Your task to perform on an android device: star an email in the gmail app Image 0: 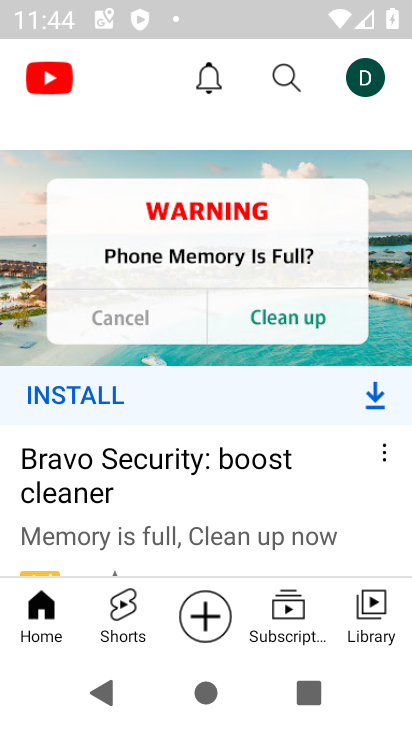
Step 0: press home button
Your task to perform on an android device: star an email in the gmail app Image 1: 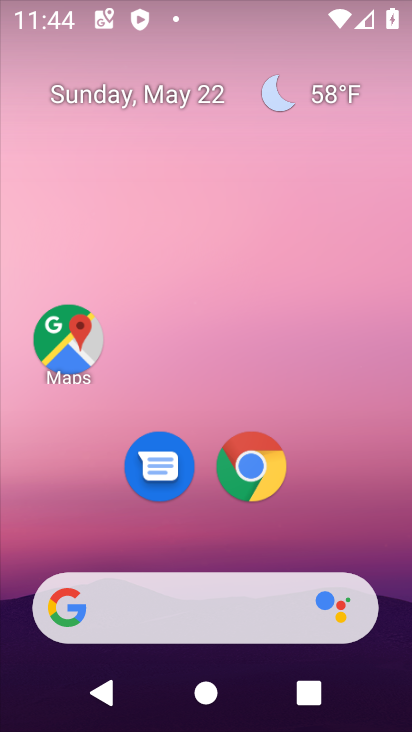
Step 1: drag from (205, 537) to (259, 69)
Your task to perform on an android device: star an email in the gmail app Image 2: 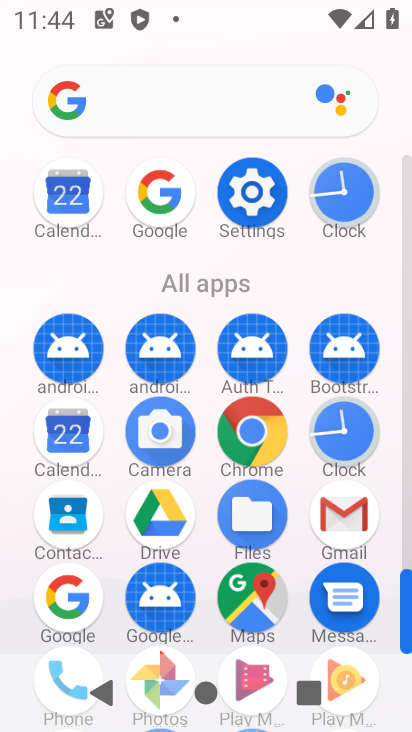
Step 2: click (341, 511)
Your task to perform on an android device: star an email in the gmail app Image 3: 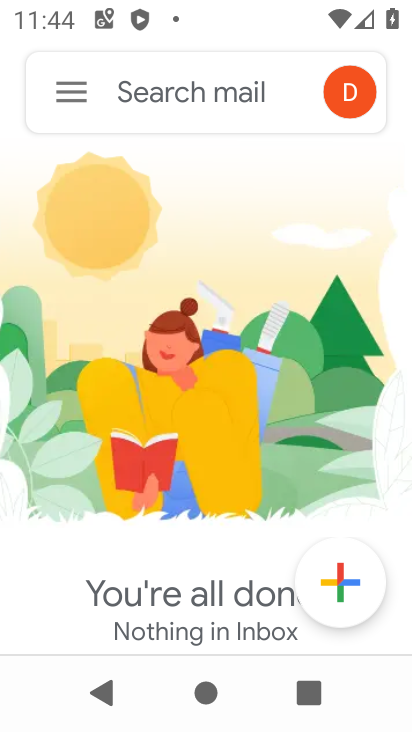
Step 3: click (59, 100)
Your task to perform on an android device: star an email in the gmail app Image 4: 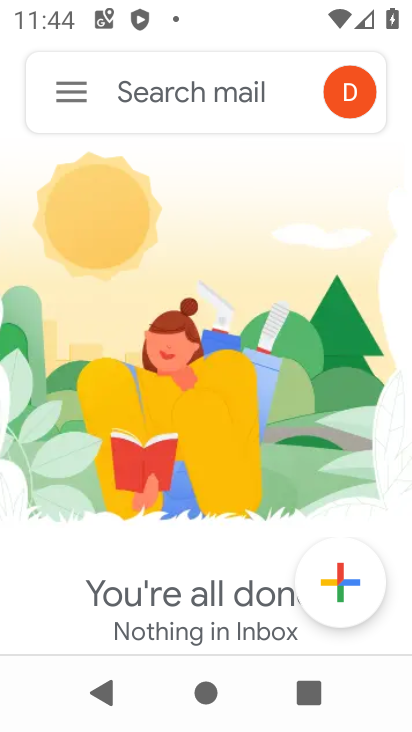
Step 4: click (74, 93)
Your task to perform on an android device: star an email in the gmail app Image 5: 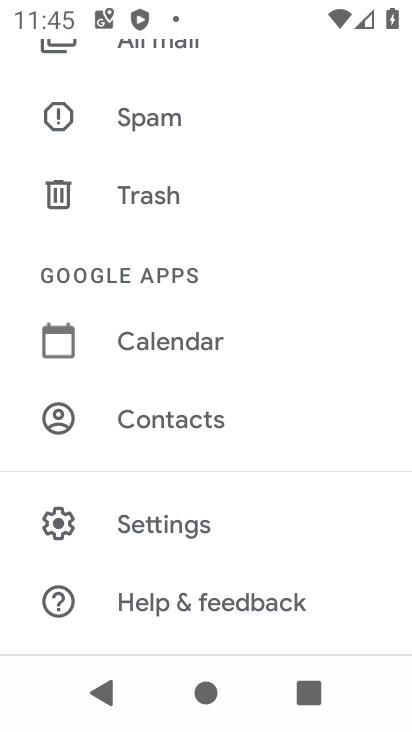
Step 5: drag from (205, 213) to (218, 525)
Your task to perform on an android device: star an email in the gmail app Image 6: 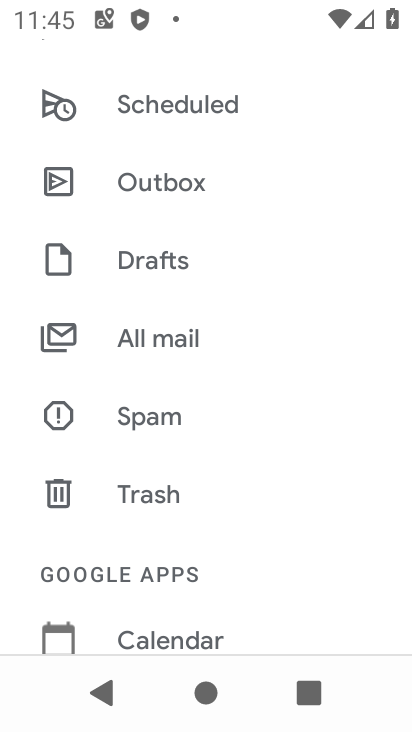
Step 6: click (183, 344)
Your task to perform on an android device: star an email in the gmail app Image 7: 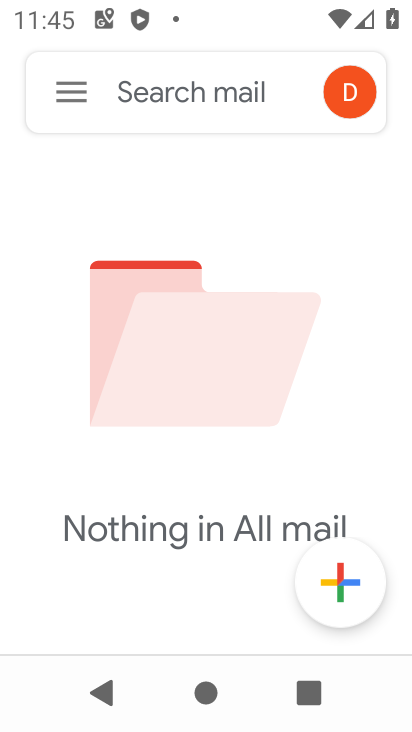
Step 7: task complete